Your task to perform on an android device: Open Maps and search for coffee Image 0: 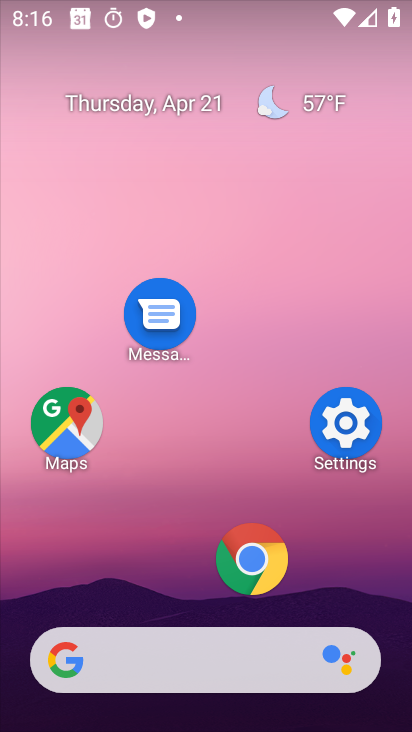
Step 0: click (76, 440)
Your task to perform on an android device: Open Maps and search for coffee Image 1: 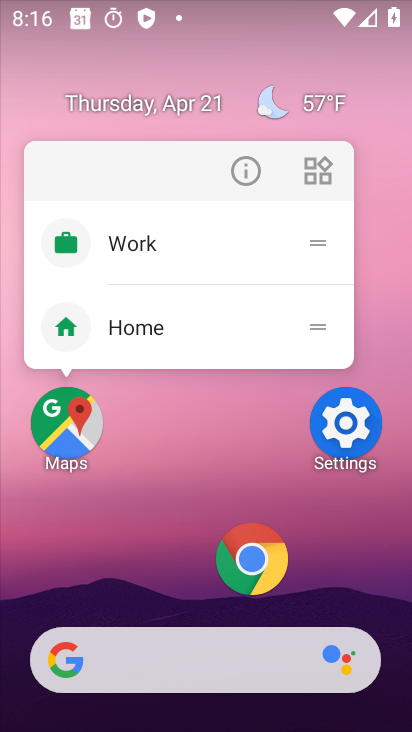
Step 1: click (71, 432)
Your task to perform on an android device: Open Maps and search for coffee Image 2: 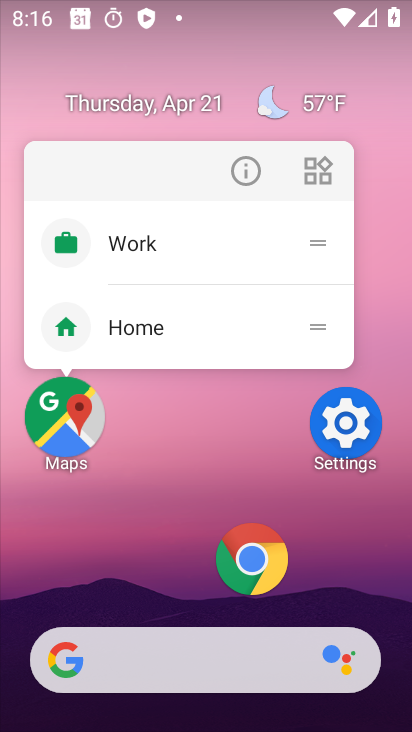
Step 2: click (71, 418)
Your task to perform on an android device: Open Maps and search for coffee Image 3: 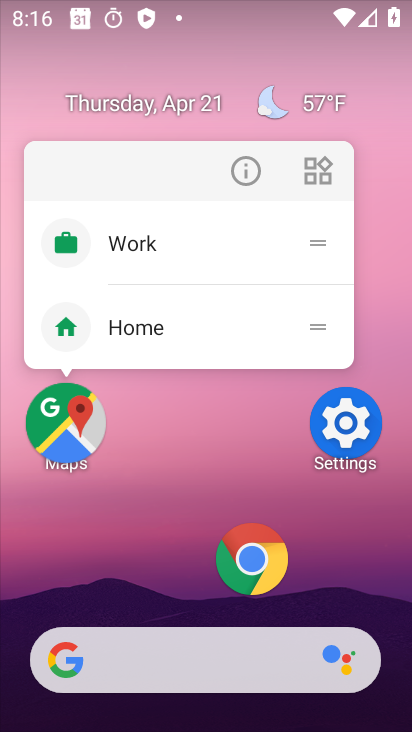
Step 3: click (71, 416)
Your task to perform on an android device: Open Maps and search for coffee Image 4: 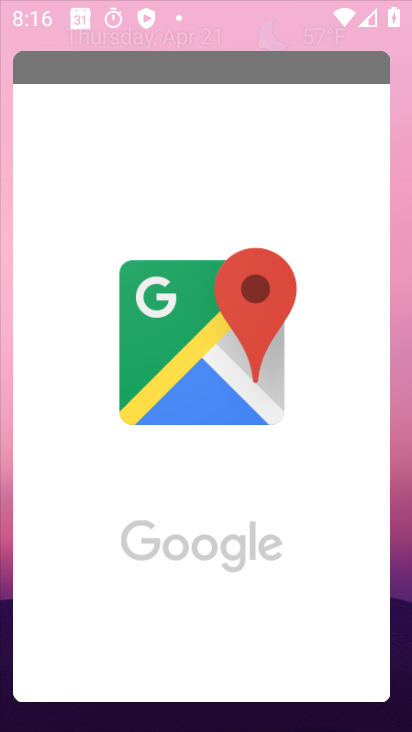
Step 4: click (177, 34)
Your task to perform on an android device: Open Maps and search for coffee Image 5: 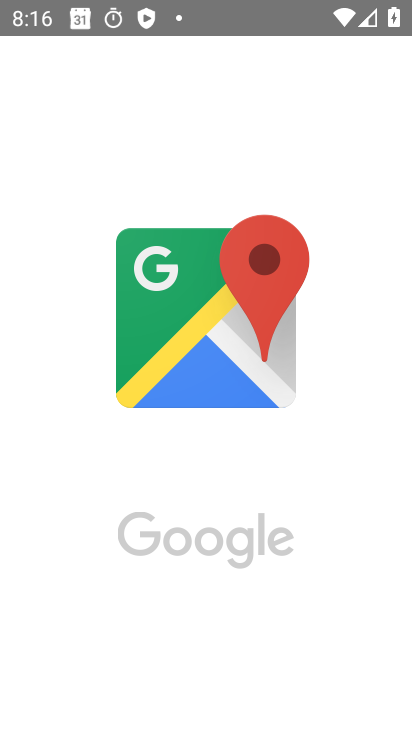
Step 5: drag from (246, 371) to (233, 29)
Your task to perform on an android device: Open Maps and search for coffee Image 6: 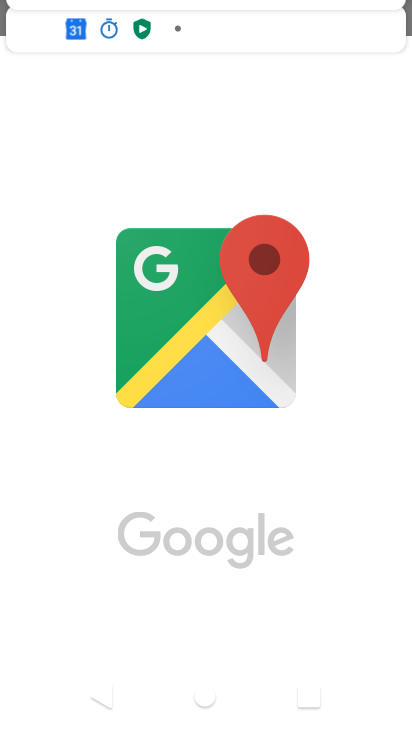
Step 6: click (212, 313)
Your task to perform on an android device: Open Maps and search for coffee Image 7: 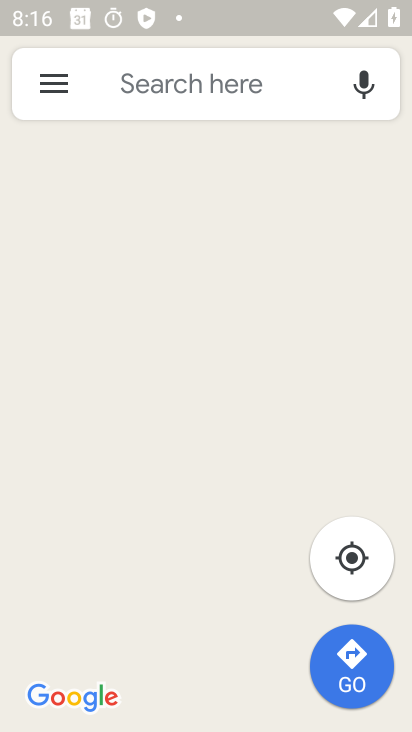
Step 7: click (208, 306)
Your task to perform on an android device: Open Maps and search for coffee Image 8: 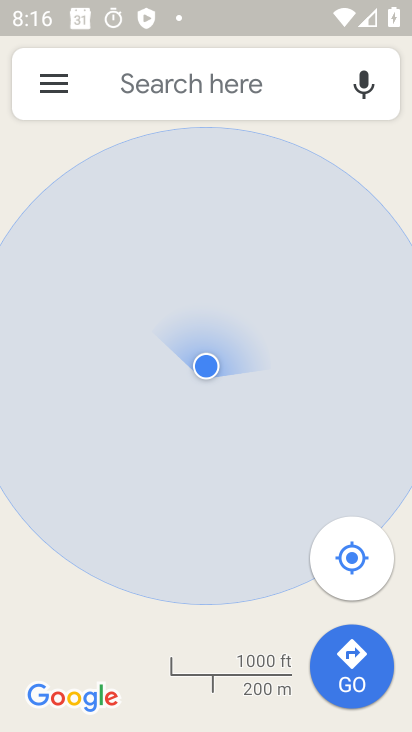
Step 8: click (126, 83)
Your task to perform on an android device: Open Maps and search for coffee Image 9: 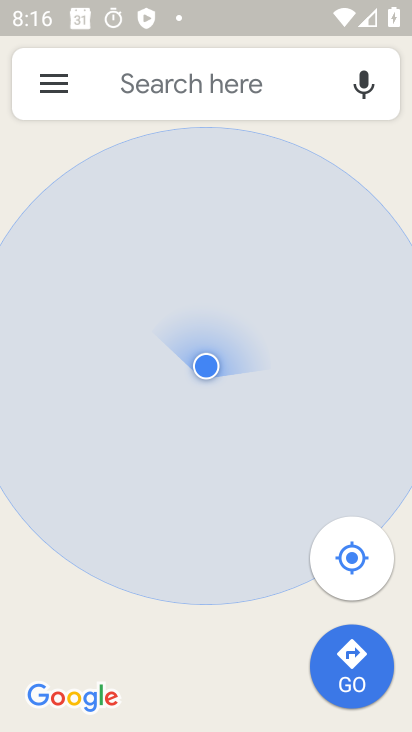
Step 9: click (126, 83)
Your task to perform on an android device: Open Maps and search for coffee Image 10: 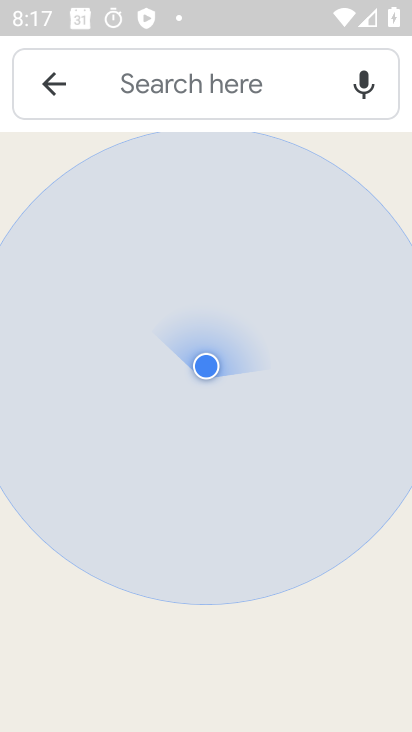
Step 10: click (126, 83)
Your task to perform on an android device: Open Maps and search for coffee Image 11: 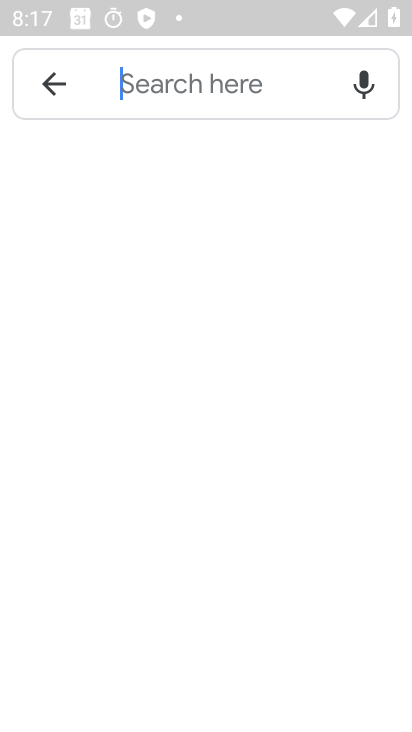
Step 11: click (126, 83)
Your task to perform on an android device: Open Maps and search for coffee Image 12: 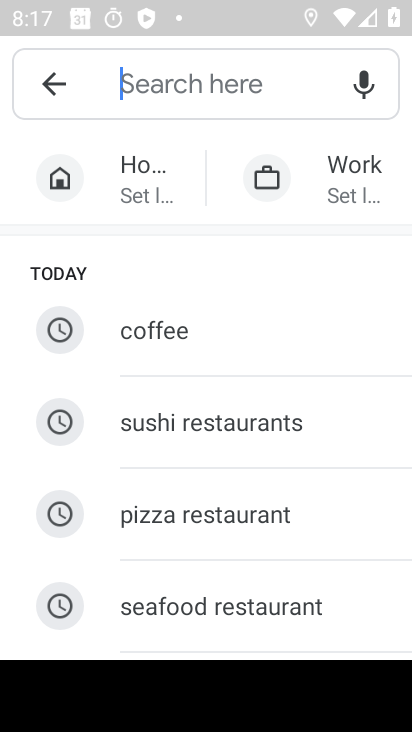
Step 12: type "coffee"
Your task to perform on an android device: Open Maps and search for coffee Image 13: 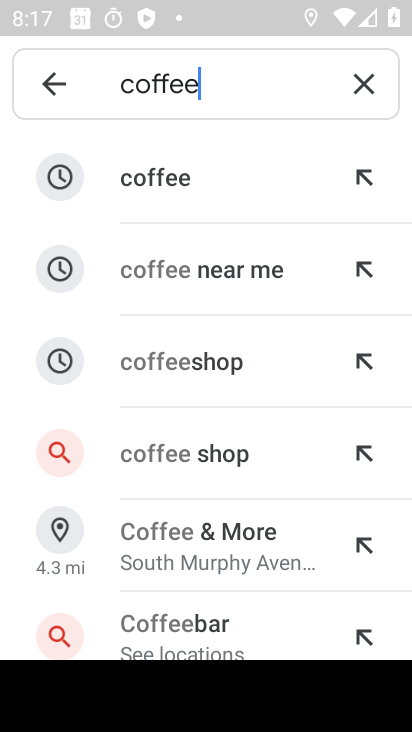
Step 13: click (176, 191)
Your task to perform on an android device: Open Maps and search for coffee Image 14: 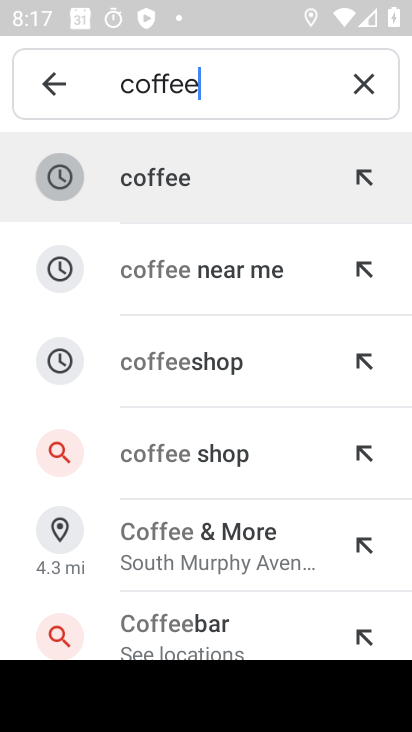
Step 14: click (179, 178)
Your task to perform on an android device: Open Maps and search for coffee Image 15: 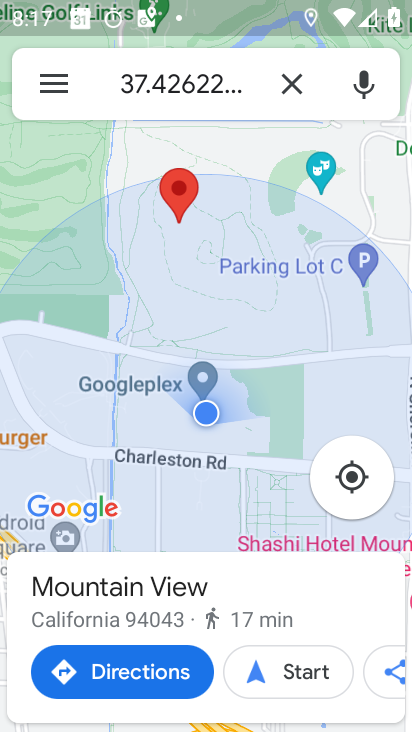
Step 15: task complete